Your task to perform on an android device: all mails in gmail Image 0: 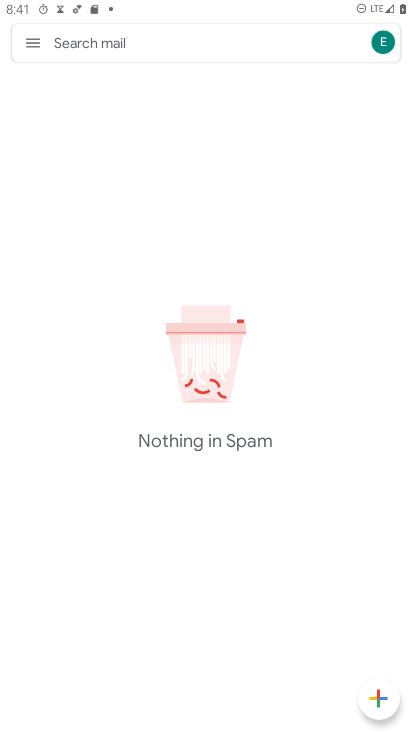
Step 0: press home button
Your task to perform on an android device: all mails in gmail Image 1: 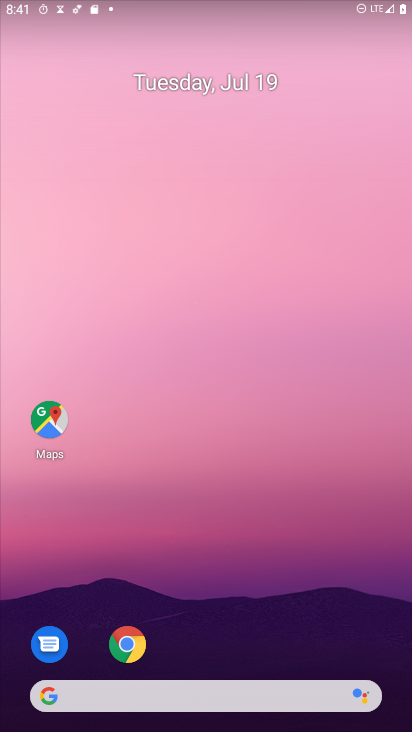
Step 1: drag from (13, 694) to (210, 168)
Your task to perform on an android device: all mails in gmail Image 2: 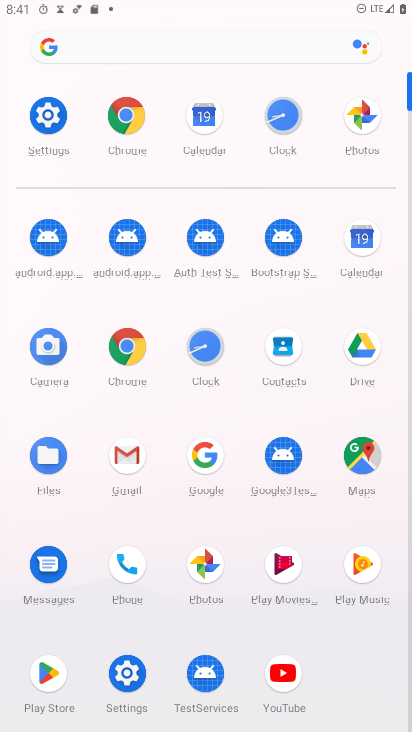
Step 2: click (137, 472)
Your task to perform on an android device: all mails in gmail Image 3: 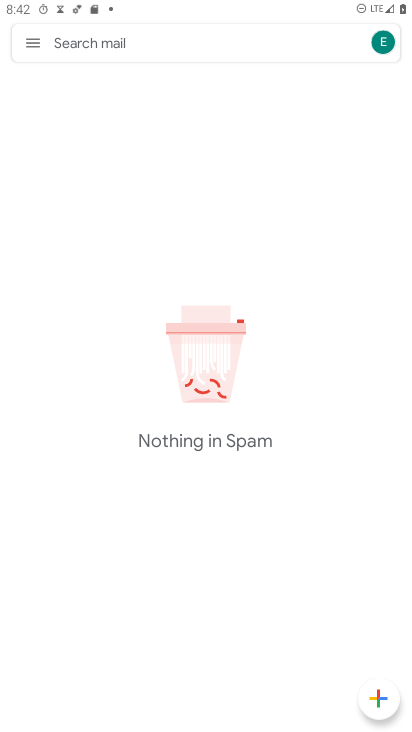
Step 3: click (30, 44)
Your task to perform on an android device: all mails in gmail Image 4: 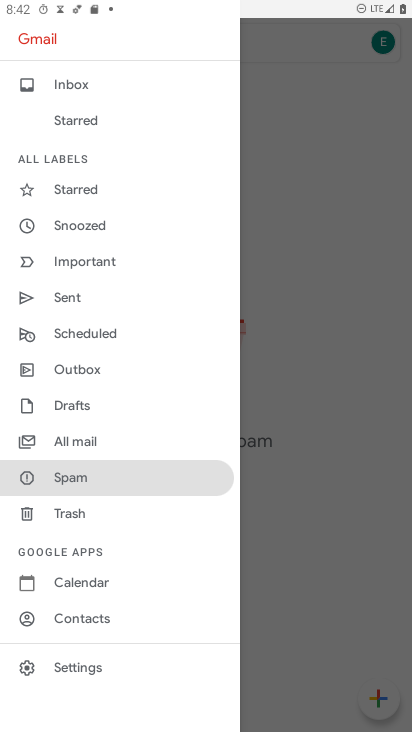
Step 4: click (104, 440)
Your task to perform on an android device: all mails in gmail Image 5: 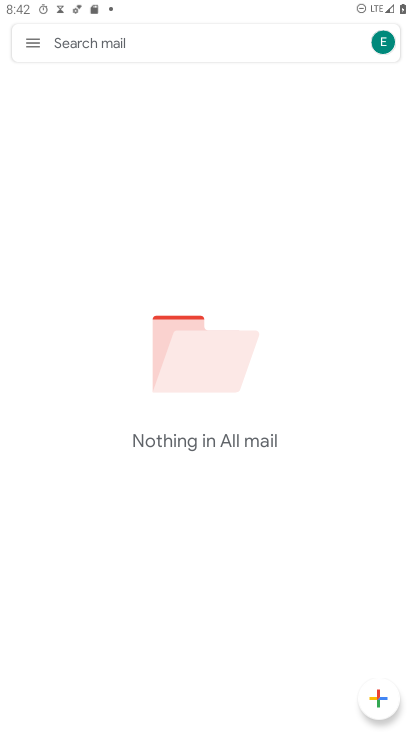
Step 5: task complete